Your task to perform on an android device: toggle improve location accuracy Image 0: 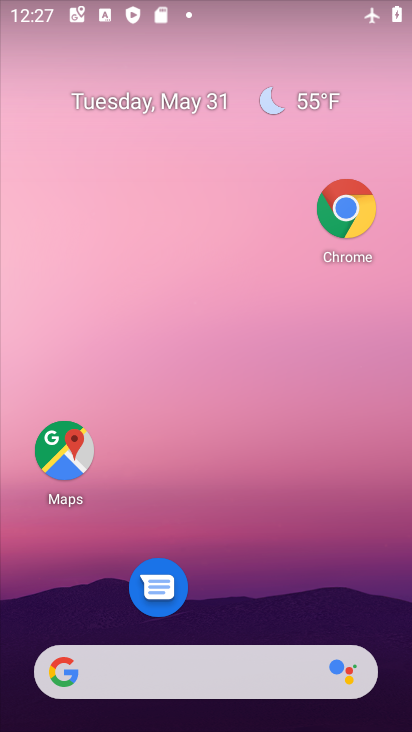
Step 0: drag from (247, 565) to (224, 134)
Your task to perform on an android device: toggle improve location accuracy Image 1: 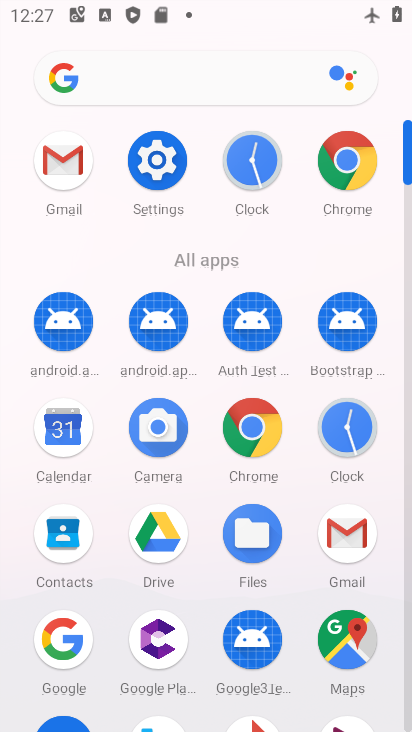
Step 1: drag from (223, 563) to (267, 173)
Your task to perform on an android device: toggle improve location accuracy Image 2: 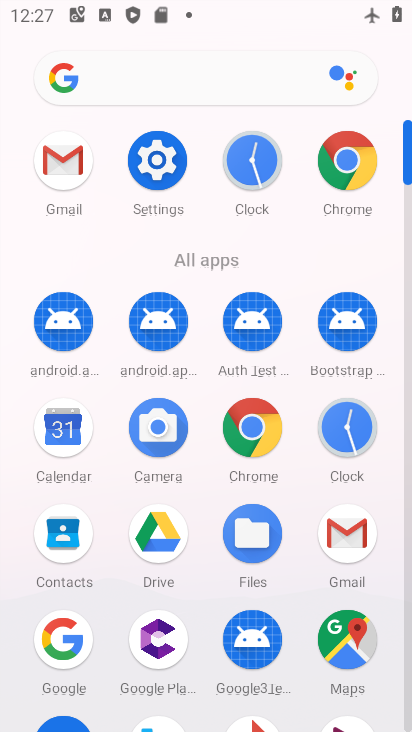
Step 2: click (156, 175)
Your task to perform on an android device: toggle improve location accuracy Image 3: 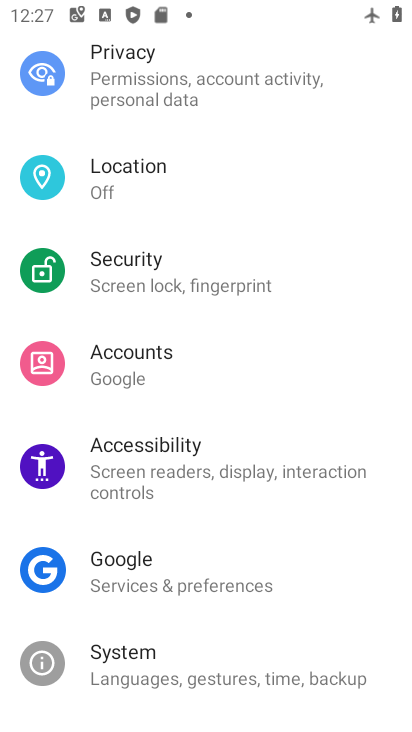
Step 3: click (156, 175)
Your task to perform on an android device: toggle improve location accuracy Image 4: 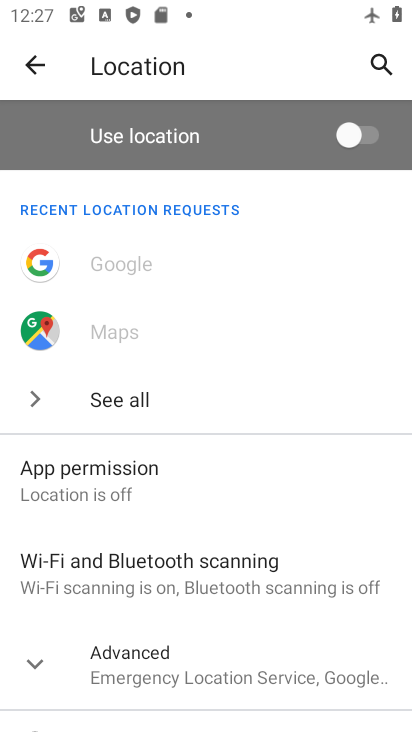
Step 4: click (172, 662)
Your task to perform on an android device: toggle improve location accuracy Image 5: 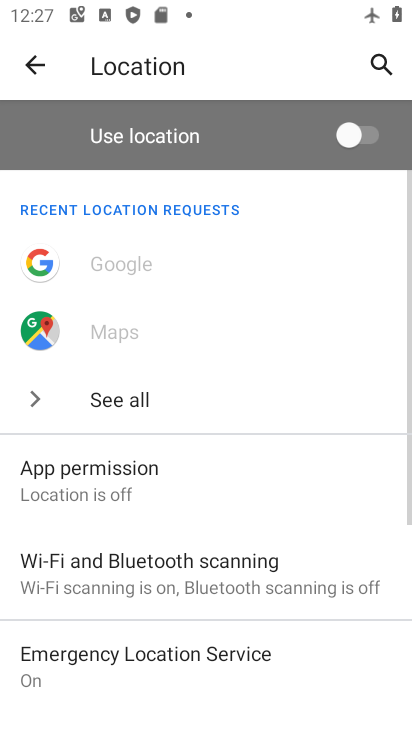
Step 5: drag from (172, 662) to (311, 135)
Your task to perform on an android device: toggle improve location accuracy Image 6: 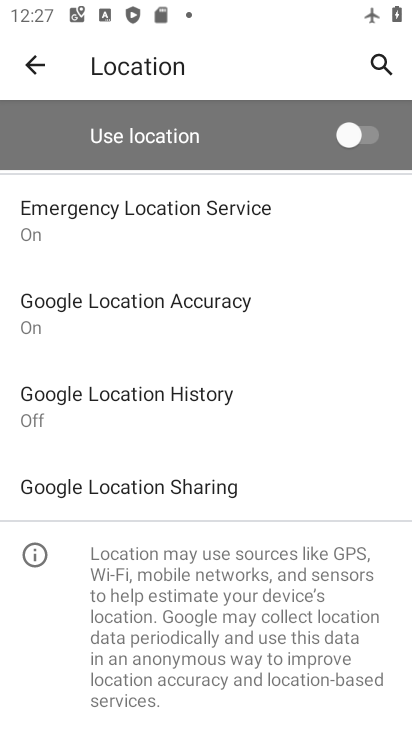
Step 6: click (196, 325)
Your task to perform on an android device: toggle improve location accuracy Image 7: 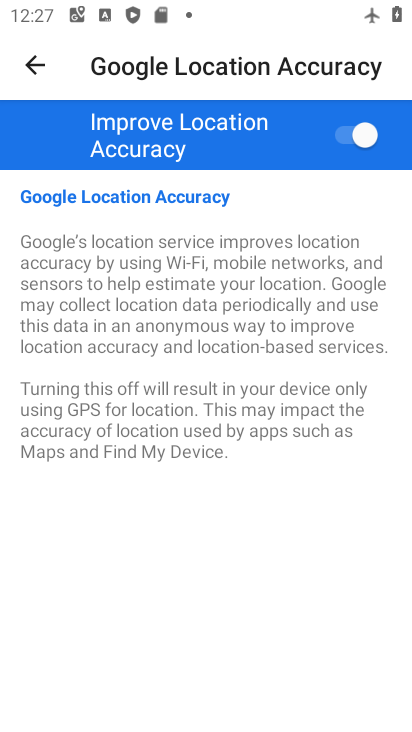
Step 7: click (357, 135)
Your task to perform on an android device: toggle improve location accuracy Image 8: 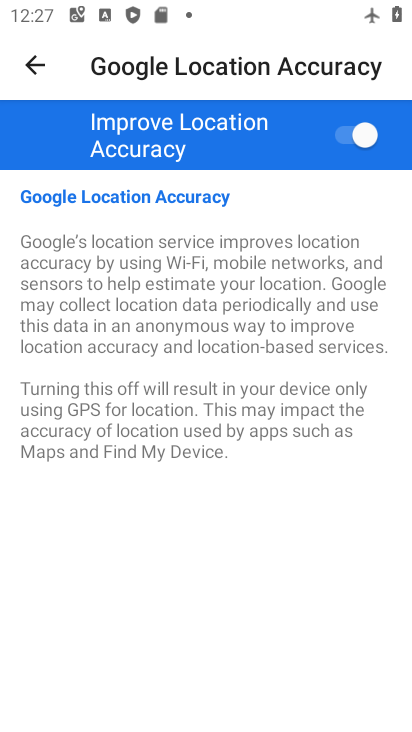
Step 8: click (357, 135)
Your task to perform on an android device: toggle improve location accuracy Image 9: 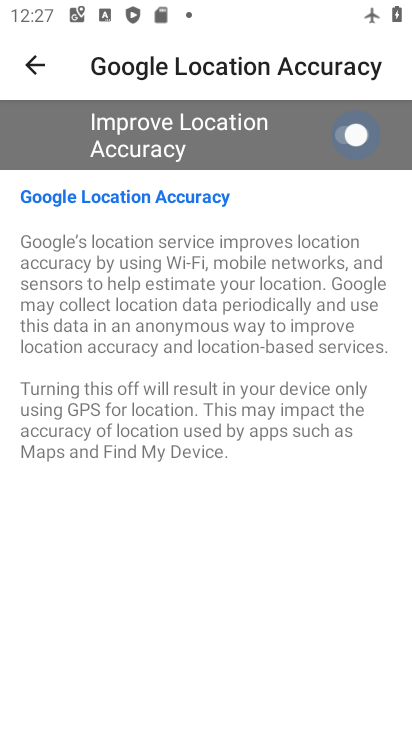
Step 9: click (357, 135)
Your task to perform on an android device: toggle improve location accuracy Image 10: 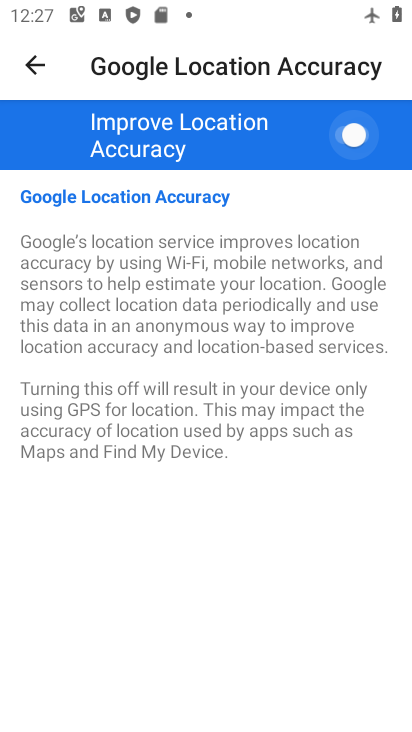
Step 10: click (357, 135)
Your task to perform on an android device: toggle improve location accuracy Image 11: 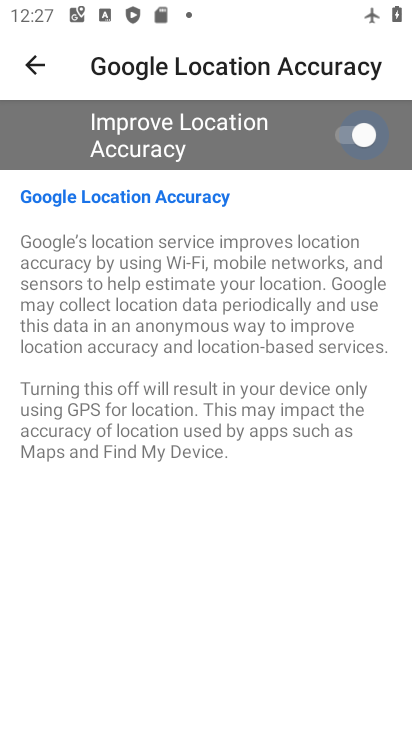
Step 11: click (357, 135)
Your task to perform on an android device: toggle improve location accuracy Image 12: 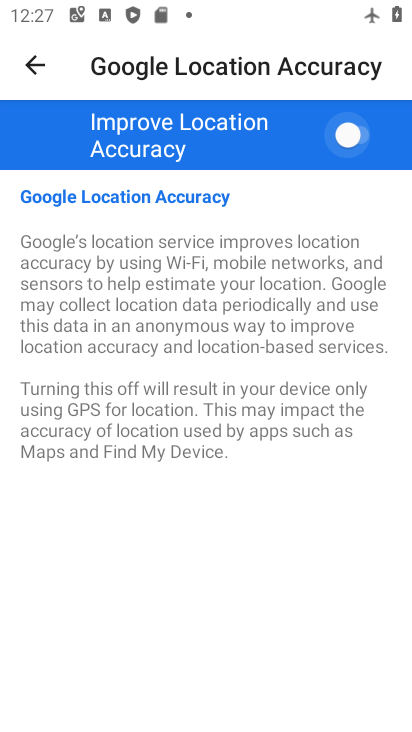
Step 12: click (357, 135)
Your task to perform on an android device: toggle improve location accuracy Image 13: 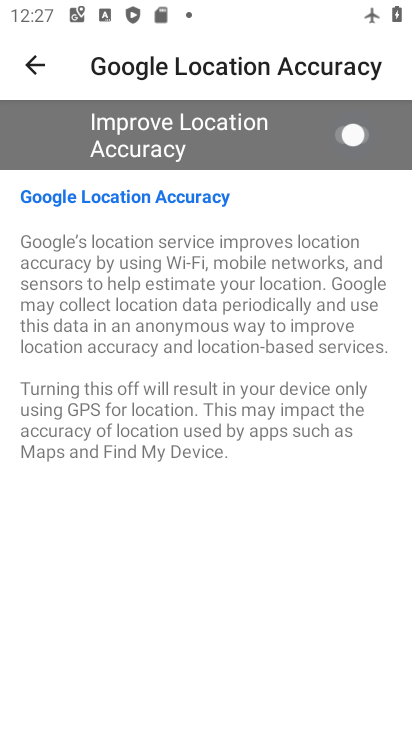
Step 13: click (357, 135)
Your task to perform on an android device: toggle improve location accuracy Image 14: 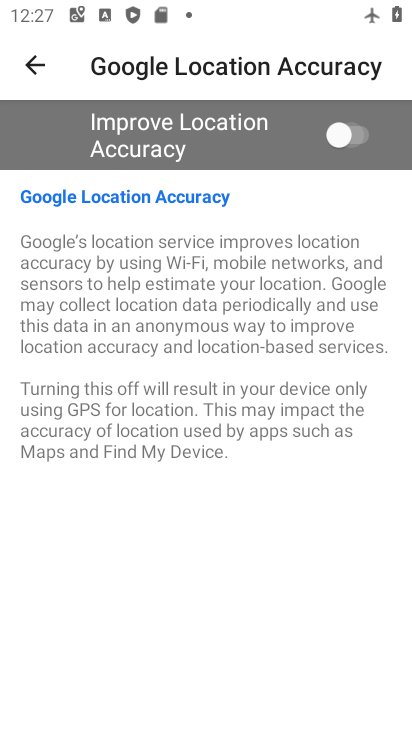
Step 14: click (357, 135)
Your task to perform on an android device: toggle improve location accuracy Image 15: 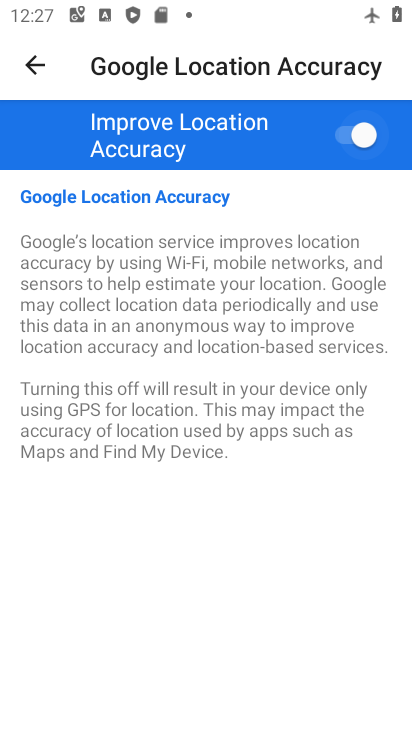
Step 15: click (357, 135)
Your task to perform on an android device: toggle improve location accuracy Image 16: 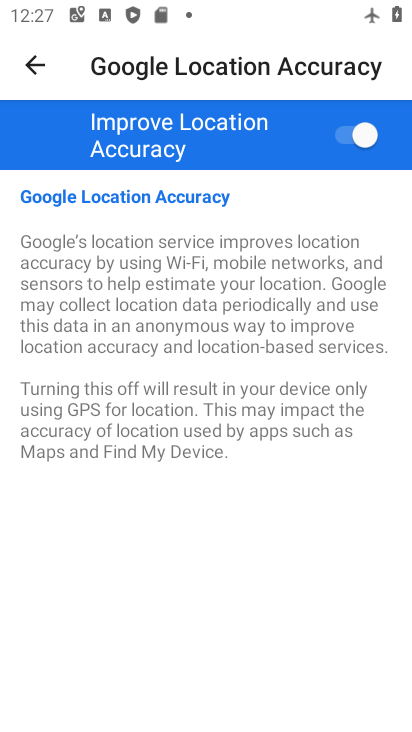
Step 16: task complete